Your task to perform on an android device: Go to Yahoo.com Image 0: 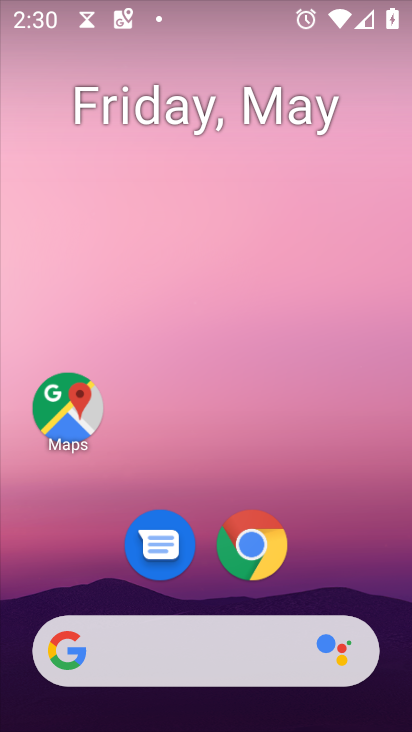
Step 0: click (252, 539)
Your task to perform on an android device: Go to Yahoo.com Image 1: 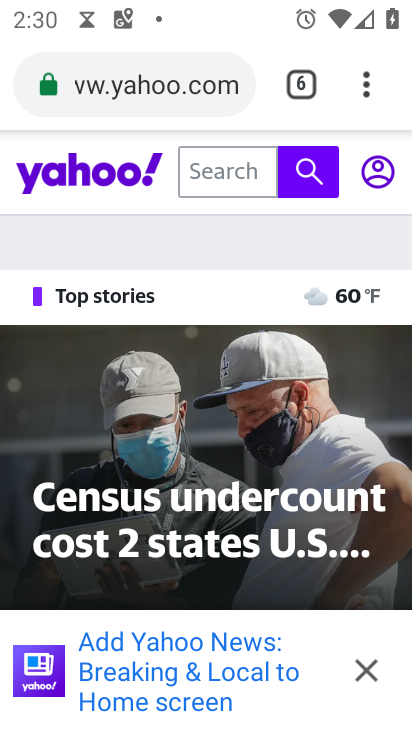
Step 1: task complete